Your task to perform on an android device: toggle airplane mode Image 0: 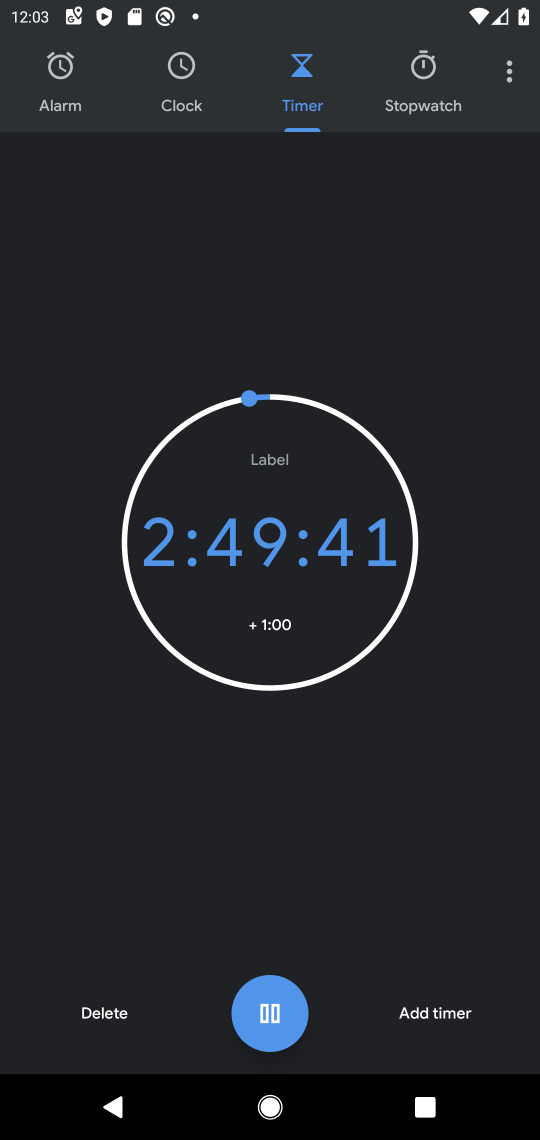
Step 0: press home button
Your task to perform on an android device: toggle airplane mode Image 1: 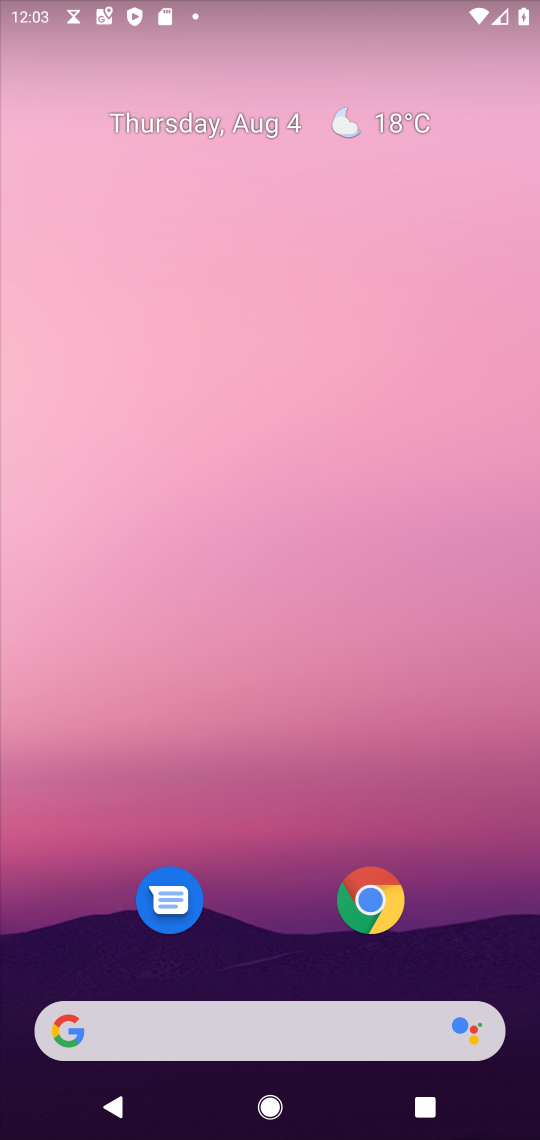
Step 1: drag from (256, 4) to (283, 773)
Your task to perform on an android device: toggle airplane mode Image 2: 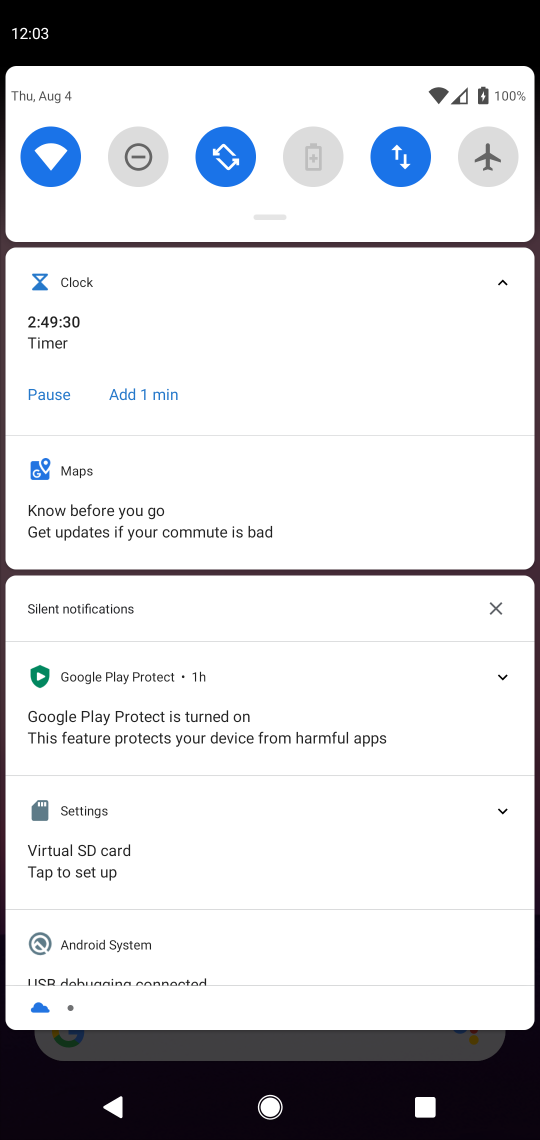
Step 2: click (485, 155)
Your task to perform on an android device: toggle airplane mode Image 3: 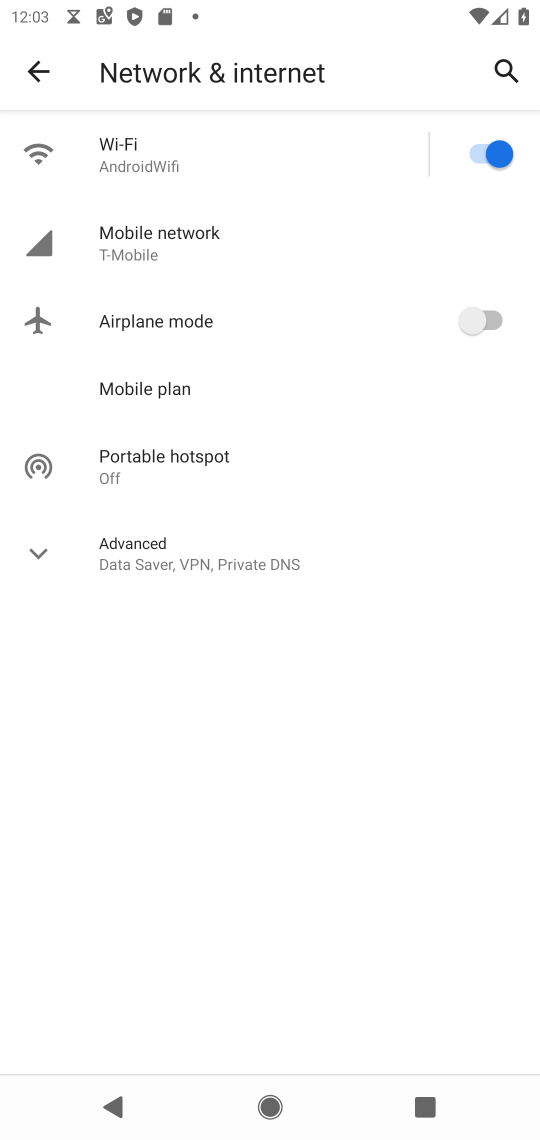
Step 3: click (476, 319)
Your task to perform on an android device: toggle airplane mode Image 4: 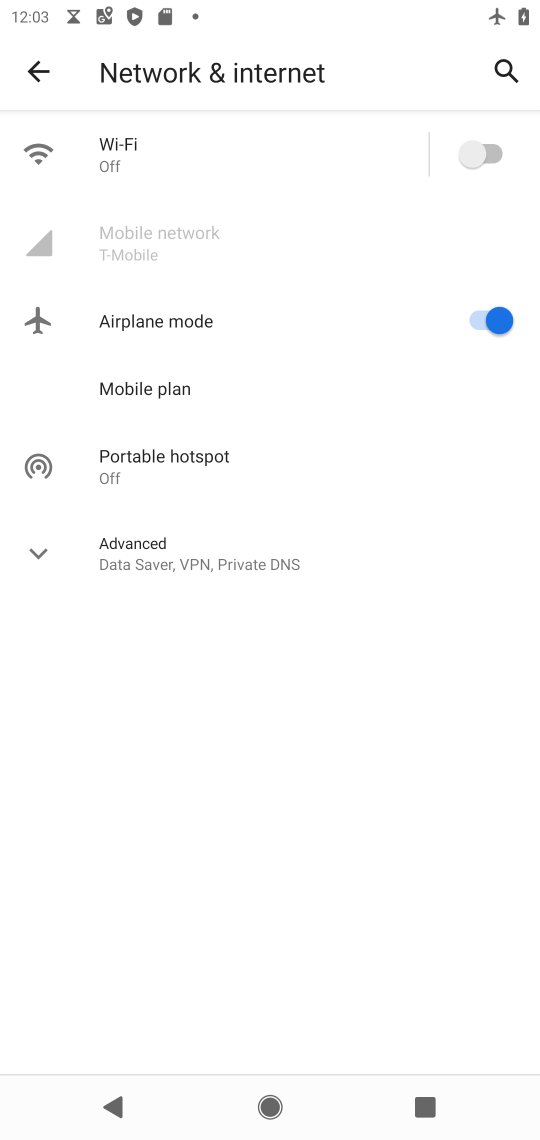
Step 4: task complete